Your task to perform on an android device: see creations saved in the google photos Image 0: 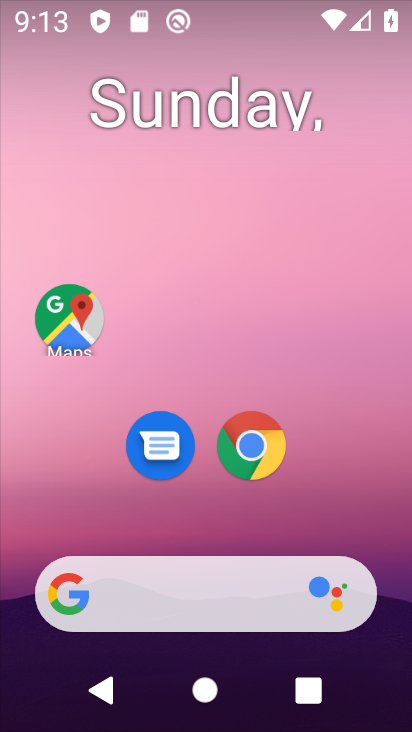
Step 0: drag from (74, 539) to (248, 30)
Your task to perform on an android device: see creations saved in the google photos Image 1: 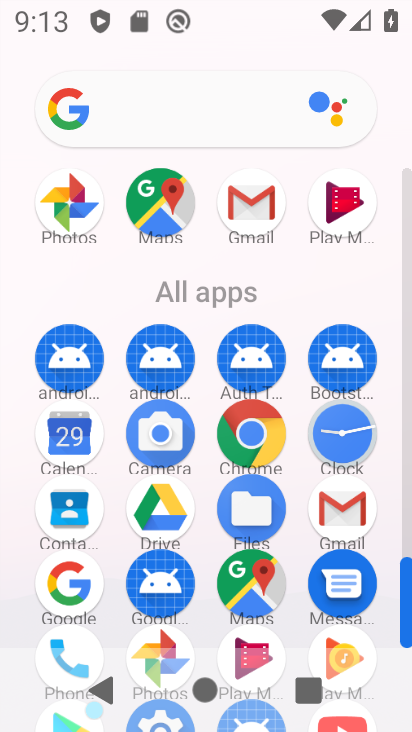
Step 1: drag from (166, 647) to (262, 311)
Your task to perform on an android device: see creations saved in the google photos Image 2: 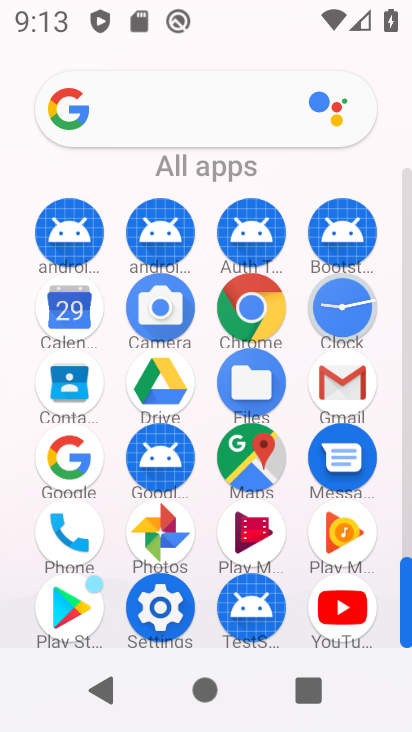
Step 2: click (172, 525)
Your task to perform on an android device: see creations saved in the google photos Image 3: 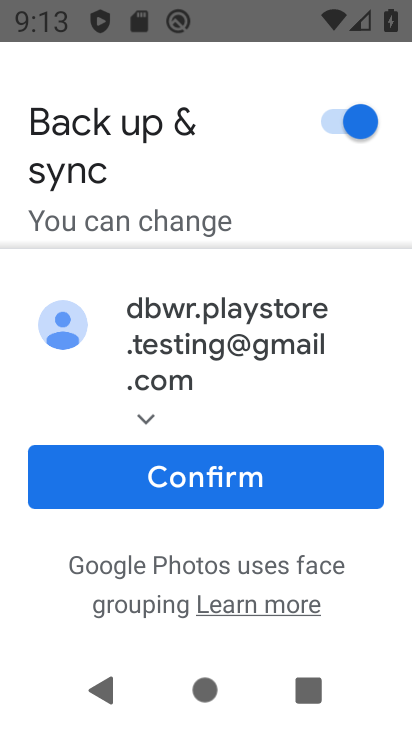
Step 3: click (319, 490)
Your task to perform on an android device: see creations saved in the google photos Image 4: 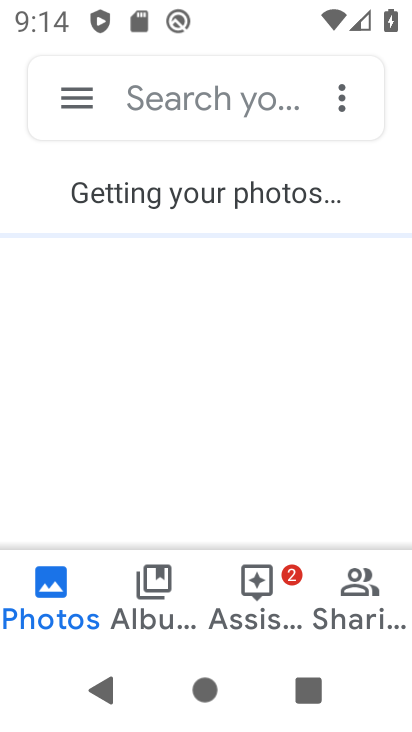
Step 4: click (214, 115)
Your task to perform on an android device: see creations saved in the google photos Image 5: 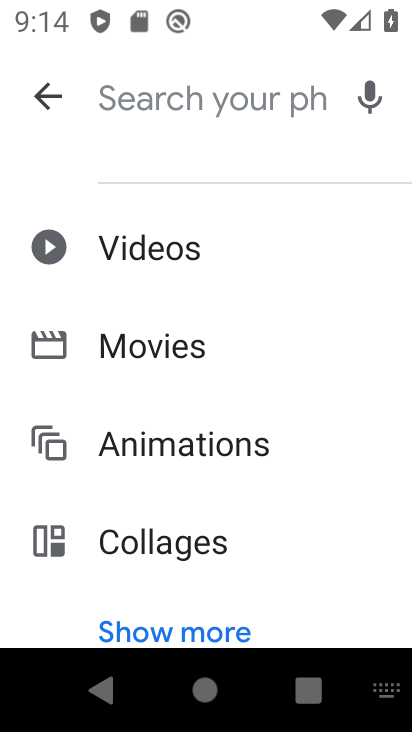
Step 5: click (212, 627)
Your task to perform on an android device: see creations saved in the google photos Image 6: 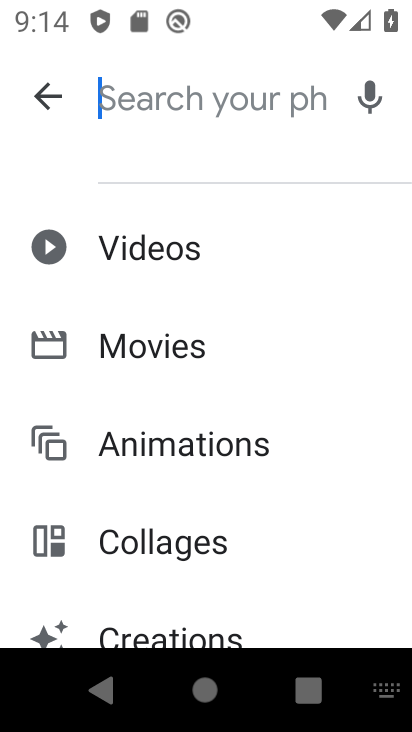
Step 6: drag from (228, 592) to (299, 367)
Your task to perform on an android device: see creations saved in the google photos Image 7: 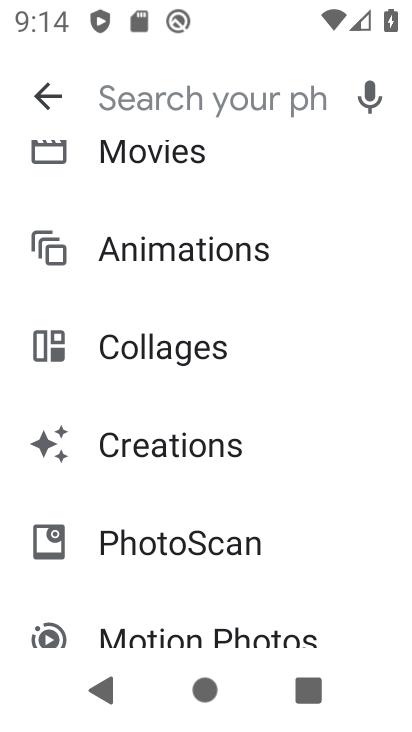
Step 7: click (219, 452)
Your task to perform on an android device: see creations saved in the google photos Image 8: 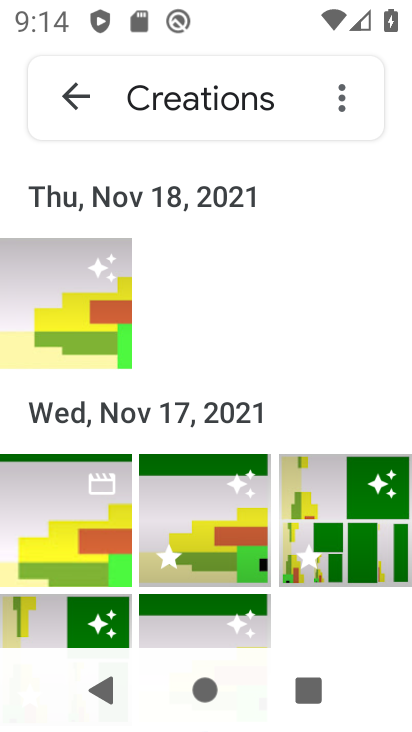
Step 8: task complete